Your task to perform on an android device: check android version Image 0: 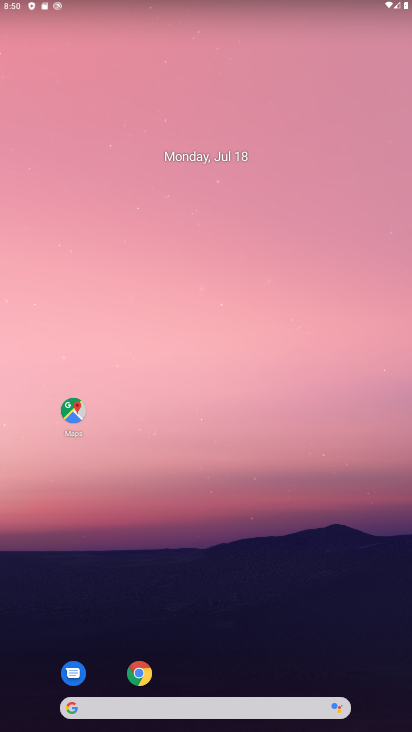
Step 0: press home button
Your task to perform on an android device: check android version Image 1: 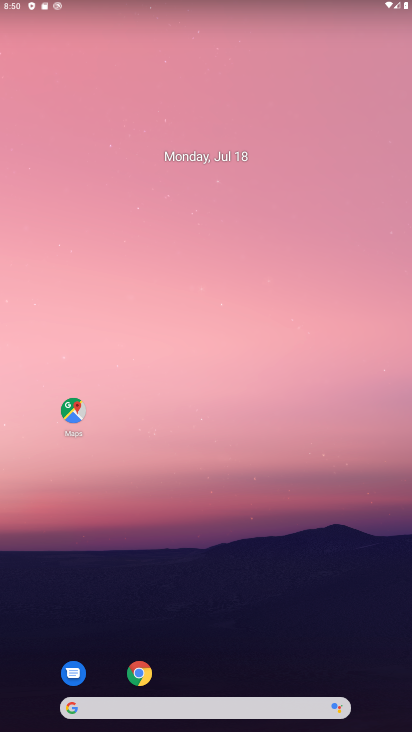
Step 1: drag from (274, 668) to (301, 93)
Your task to perform on an android device: check android version Image 2: 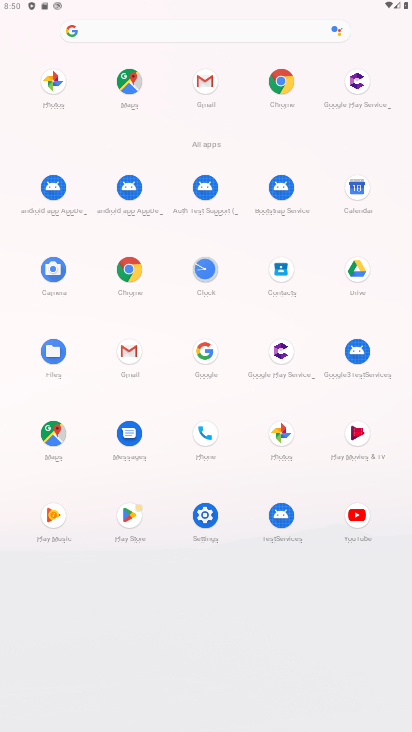
Step 2: click (211, 507)
Your task to perform on an android device: check android version Image 3: 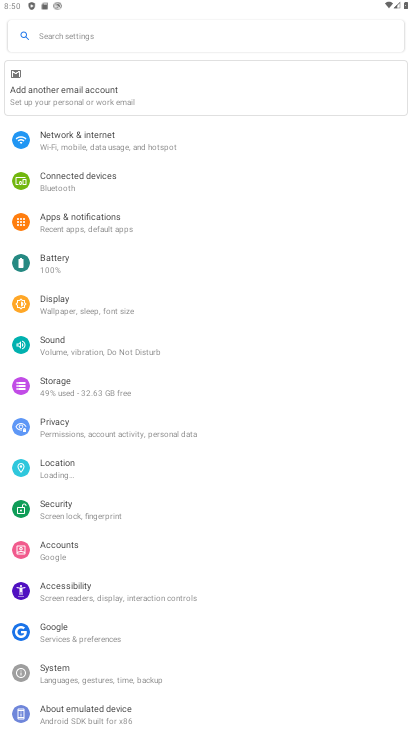
Step 3: click (83, 708)
Your task to perform on an android device: check android version Image 4: 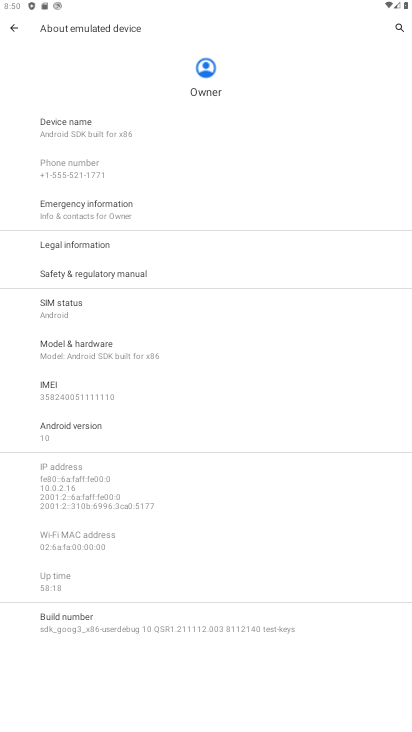
Step 4: task complete